Your task to perform on an android device: turn off wifi Image 0: 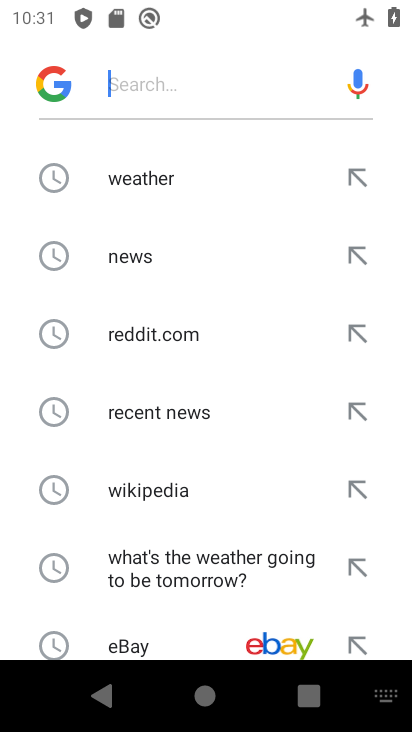
Step 0: press back button
Your task to perform on an android device: turn off wifi Image 1: 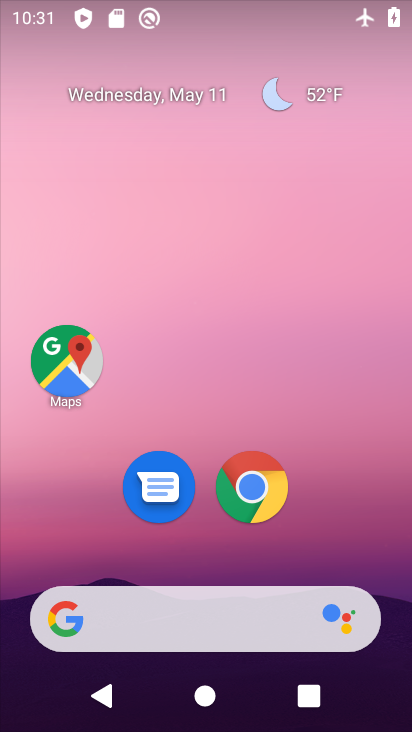
Step 1: drag from (336, 531) to (279, 17)
Your task to perform on an android device: turn off wifi Image 2: 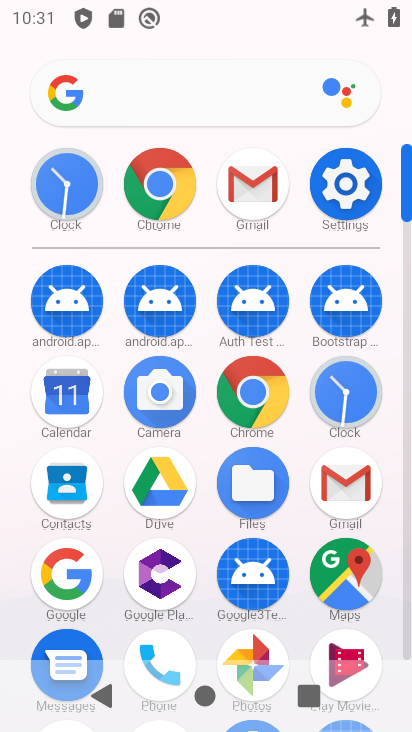
Step 2: click (344, 182)
Your task to perform on an android device: turn off wifi Image 3: 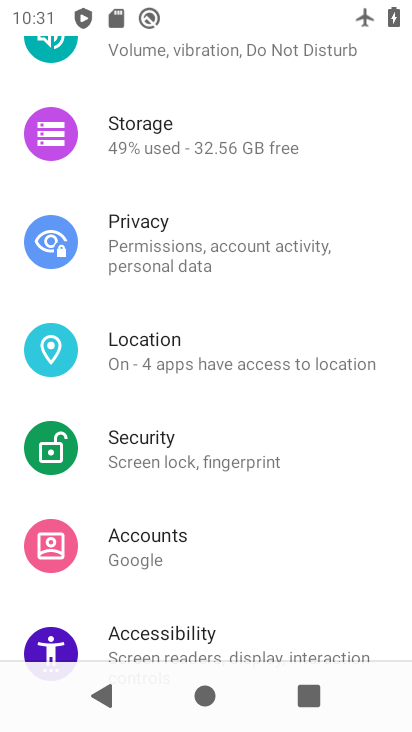
Step 3: drag from (283, 215) to (244, 622)
Your task to perform on an android device: turn off wifi Image 4: 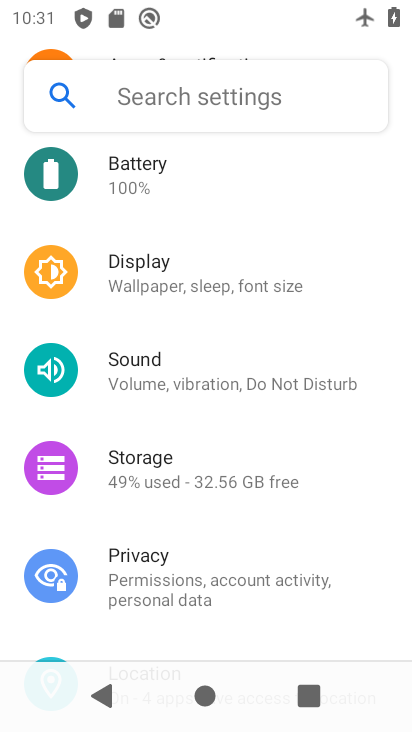
Step 4: drag from (311, 223) to (271, 575)
Your task to perform on an android device: turn off wifi Image 5: 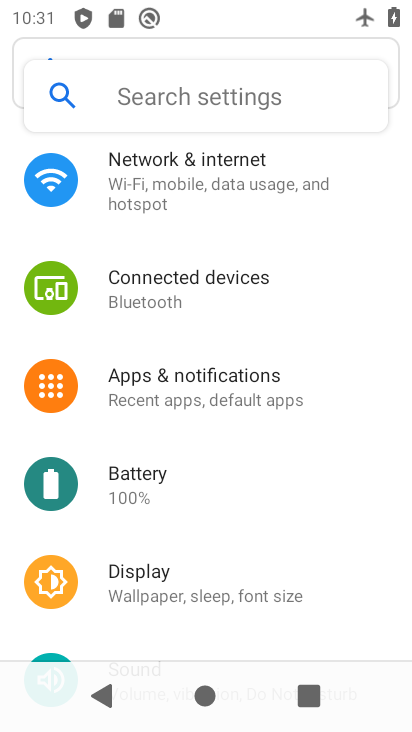
Step 5: drag from (290, 261) to (252, 522)
Your task to perform on an android device: turn off wifi Image 6: 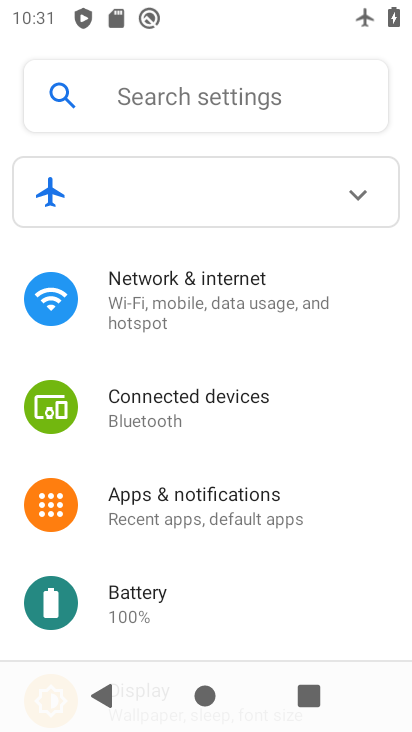
Step 6: click (213, 311)
Your task to perform on an android device: turn off wifi Image 7: 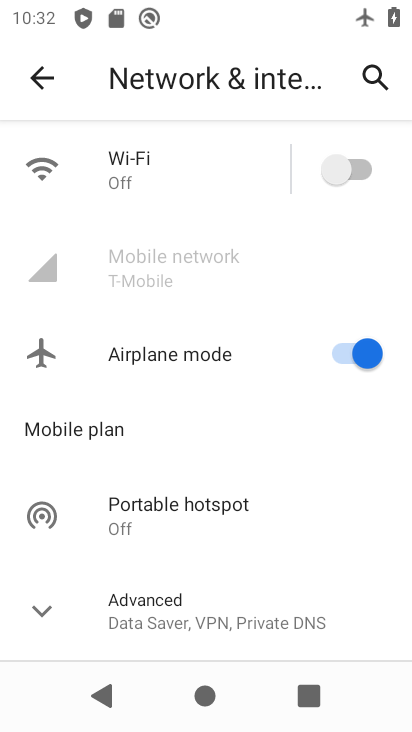
Step 7: task complete